Your task to perform on an android device: What's the weather? Image 0: 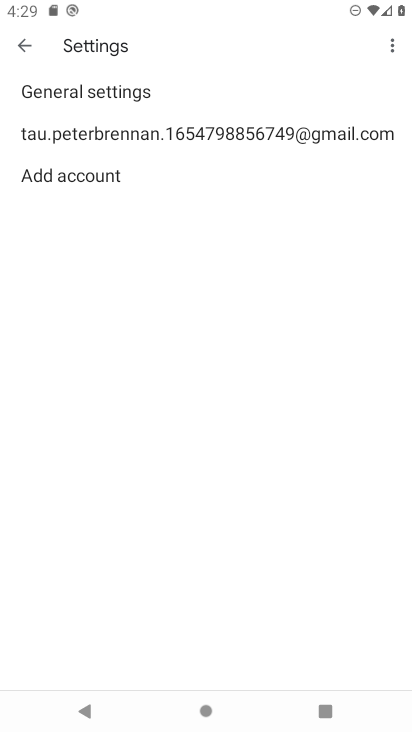
Step 0: press home button
Your task to perform on an android device: What's the weather? Image 1: 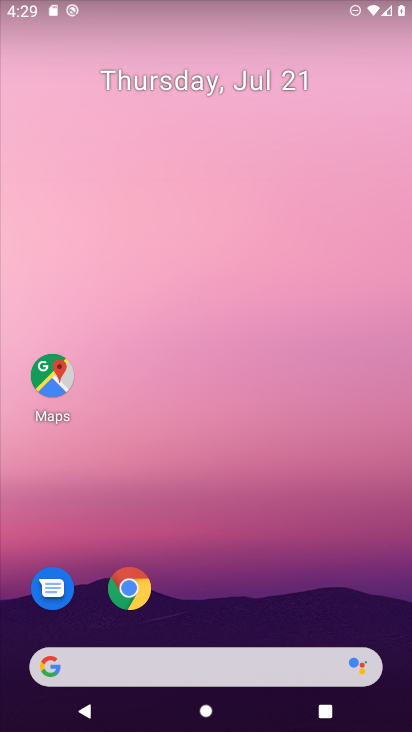
Step 1: drag from (216, 632) to (232, 143)
Your task to perform on an android device: What's the weather? Image 2: 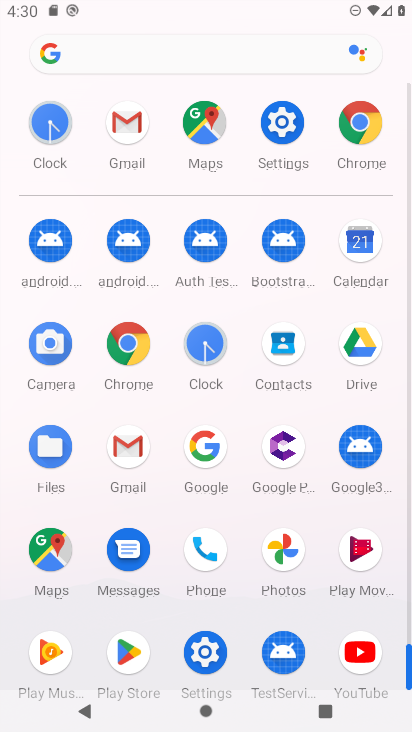
Step 2: click (215, 463)
Your task to perform on an android device: What's the weather? Image 3: 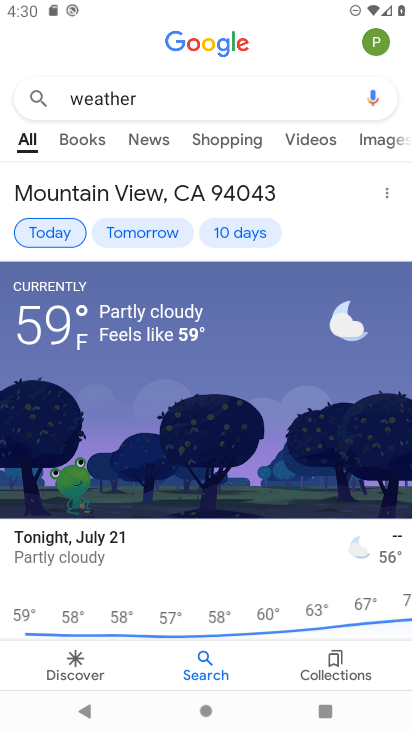
Step 3: task complete